Your task to perform on an android device: check the backup settings in the google photos Image 0: 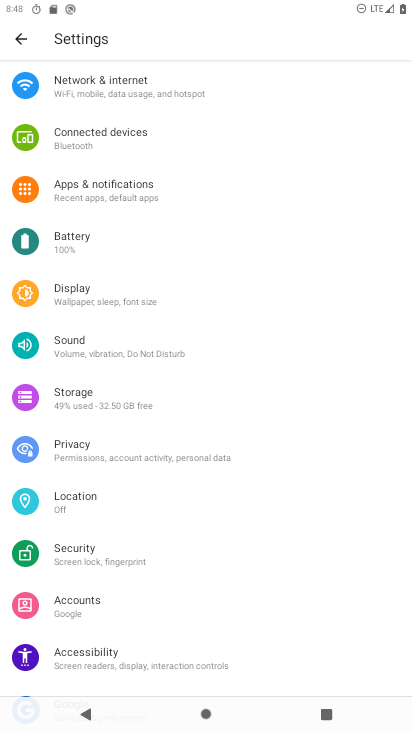
Step 0: press home button
Your task to perform on an android device: check the backup settings in the google photos Image 1: 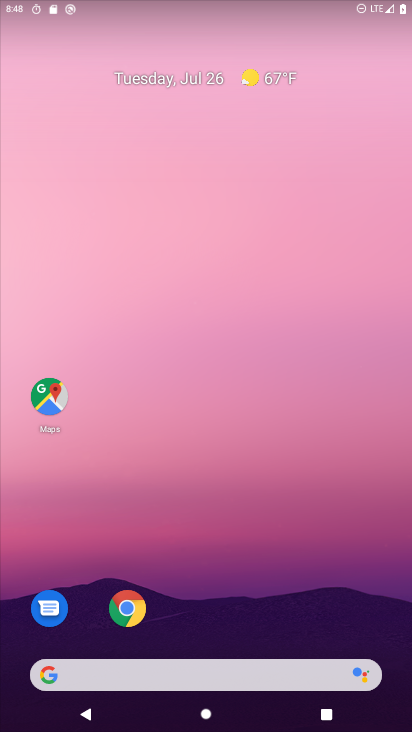
Step 1: drag from (215, 637) to (249, 7)
Your task to perform on an android device: check the backup settings in the google photos Image 2: 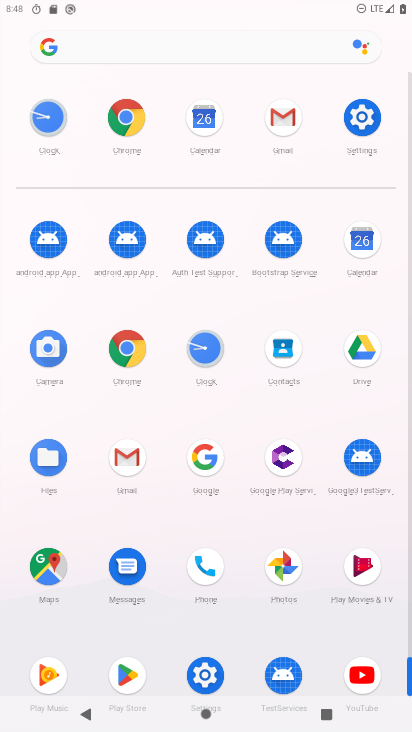
Step 2: click (284, 573)
Your task to perform on an android device: check the backup settings in the google photos Image 3: 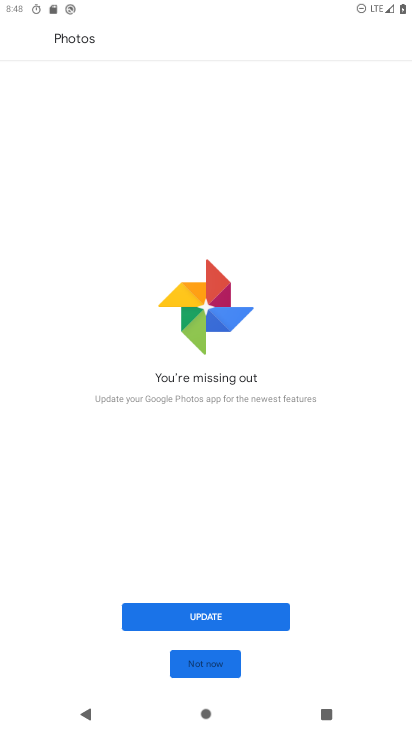
Step 3: click (226, 662)
Your task to perform on an android device: check the backup settings in the google photos Image 4: 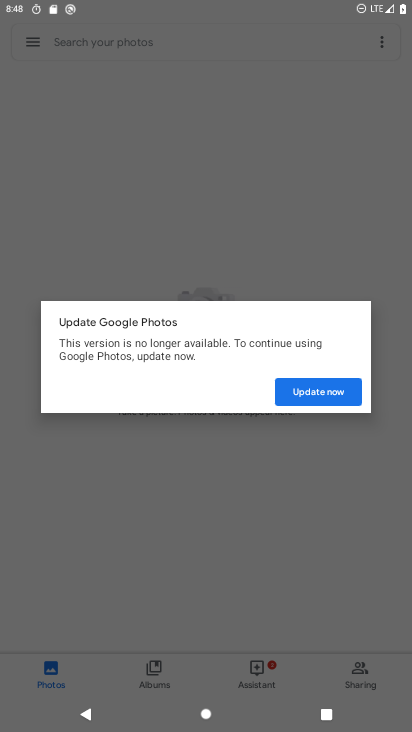
Step 4: click (344, 395)
Your task to perform on an android device: check the backup settings in the google photos Image 5: 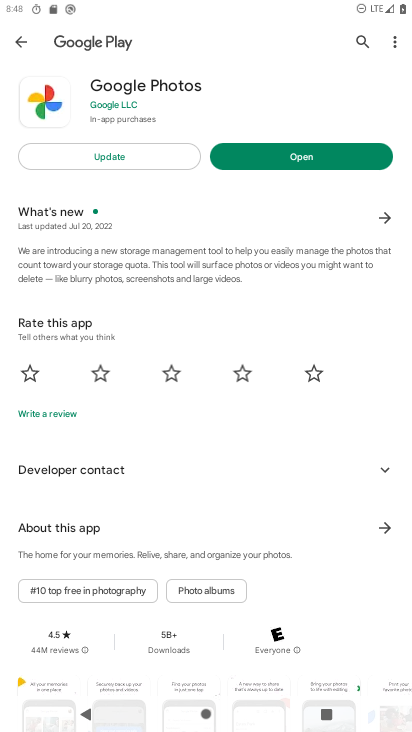
Step 5: click (340, 160)
Your task to perform on an android device: check the backup settings in the google photos Image 6: 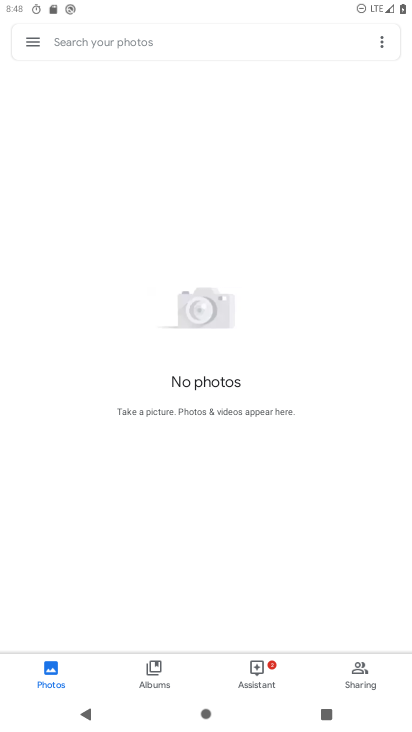
Step 6: click (32, 44)
Your task to perform on an android device: check the backup settings in the google photos Image 7: 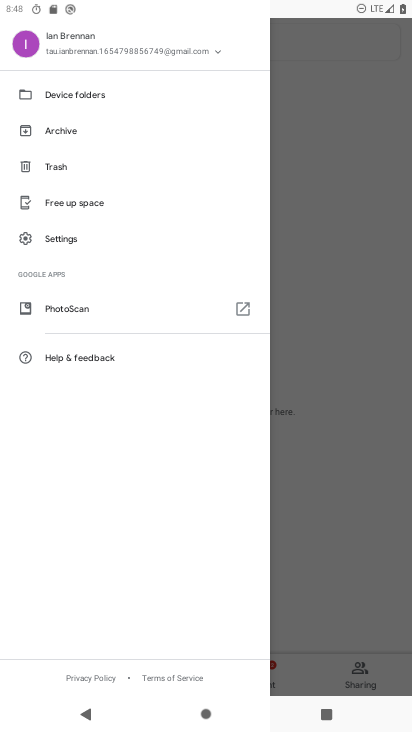
Step 7: click (69, 250)
Your task to perform on an android device: check the backup settings in the google photos Image 8: 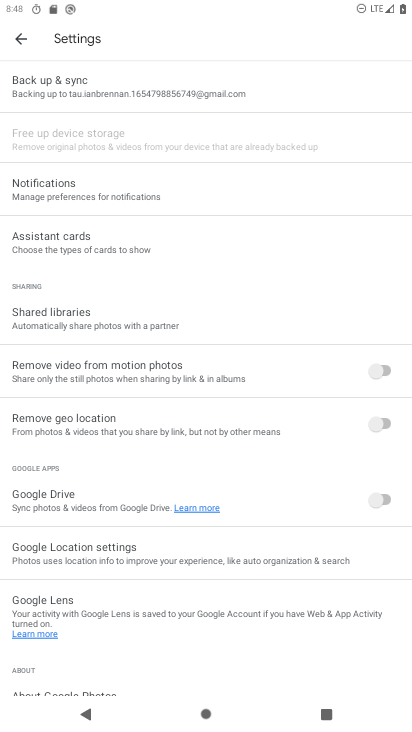
Step 8: click (73, 85)
Your task to perform on an android device: check the backup settings in the google photos Image 9: 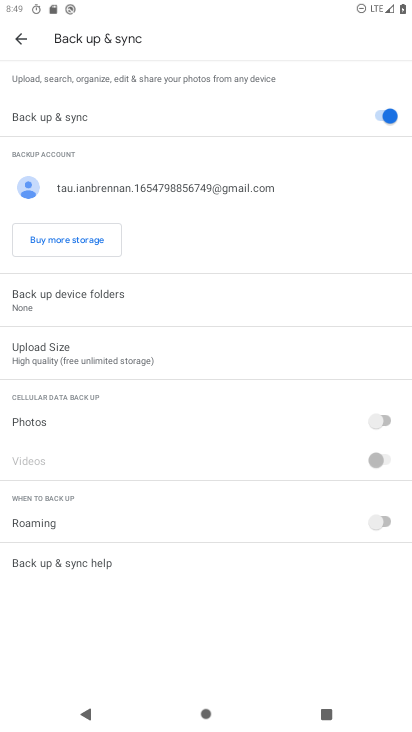
Step 9: task complete